Your task to perform on an android device: toggle show notifications on the lock screen Image 0: 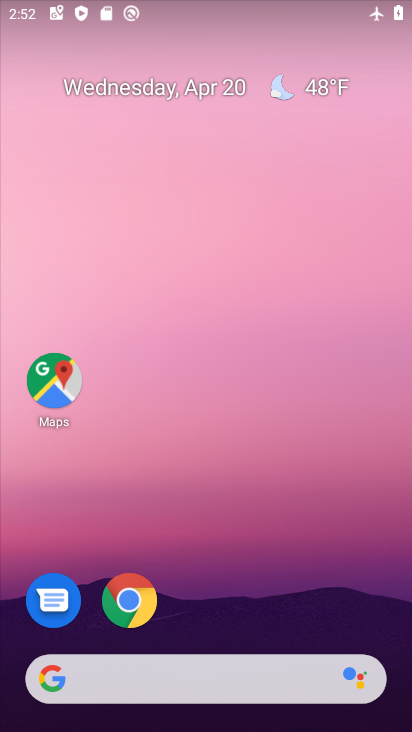
Step 0: drag from (337, 562) to (359, 88)
Your task to perform on an android device: toggle show notifications on the lock screen Image 1: 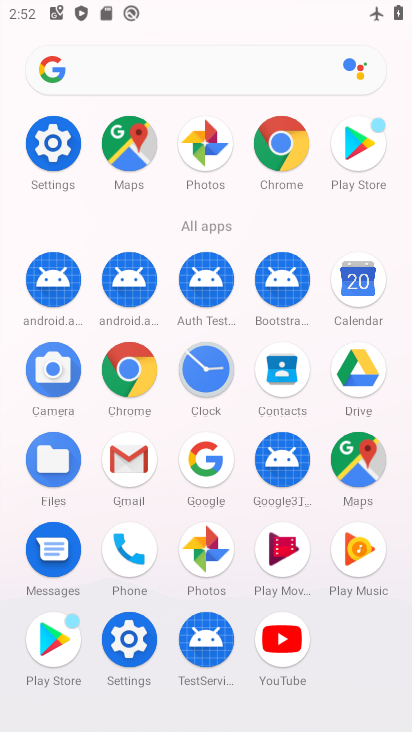
Step 1: click (48, 149)
Your task to perform on an android device: toggle show notifications on the lock screen Image 2: 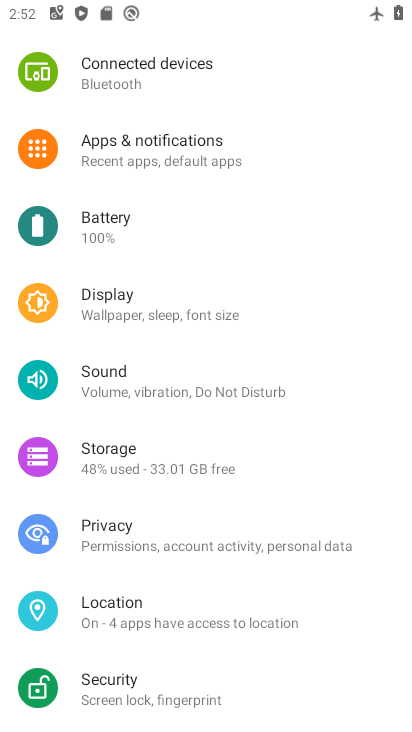
Step 2: click (197, 150)
Your task to perform on an android device: toggle show notifications on the lock screen Image 3: 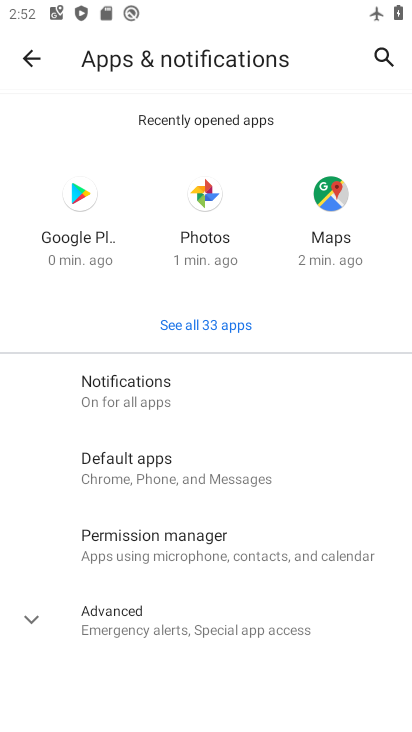
Step 3: click (127, 398)
Your task to perform on an android device: toggle show notifications on the lock screen Image 4: 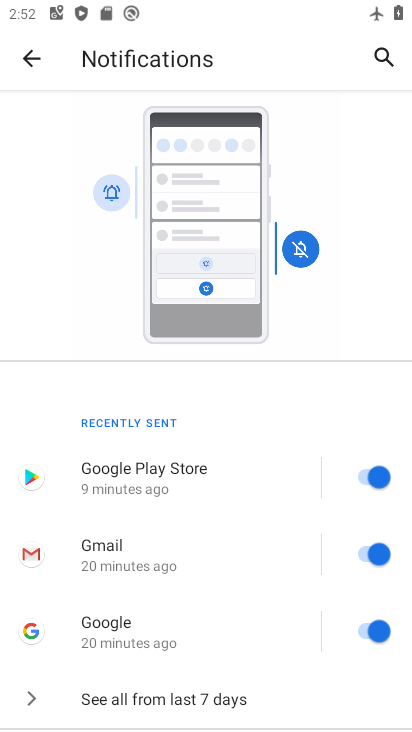
Step 4: drag from (258, 623) to (288, 330)
Your task to perform on an android device: toggle show notifications on the lock screen Image 5: 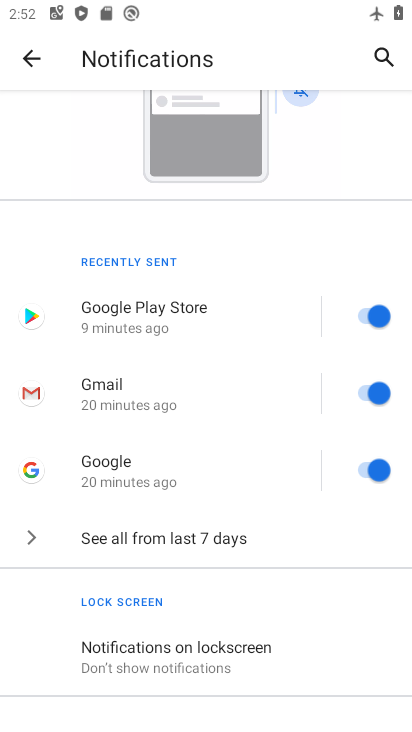
Step 5: drag from (228, 585) to (289, 262)
Your task to perform on an android device: toggle show notifications on the lock screen Image 6: 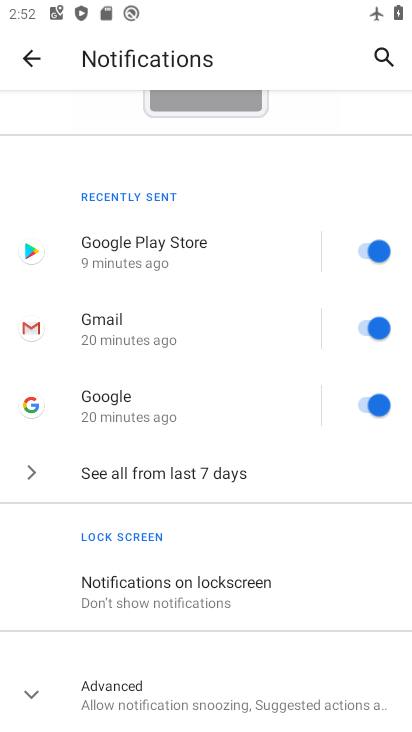
Step 6: click (197, 603)
Your task to perform on an android device: toggle show notifications on the lock screen Image 7: 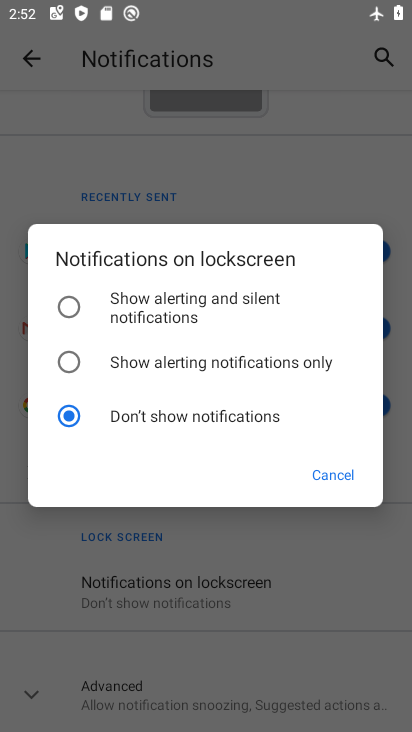
Step 7: click (63, 359)
Your task to perform on an android device: toggle show notifications on the lock screen Image 8: 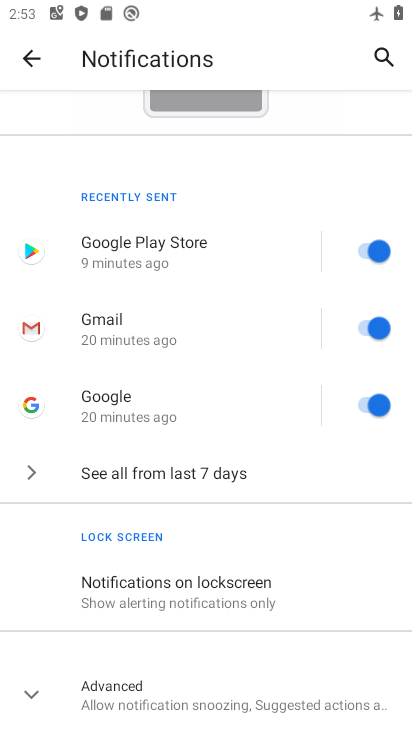
Step 8: task complete